Your task to perform on an android device: open wifi settings Image 0: 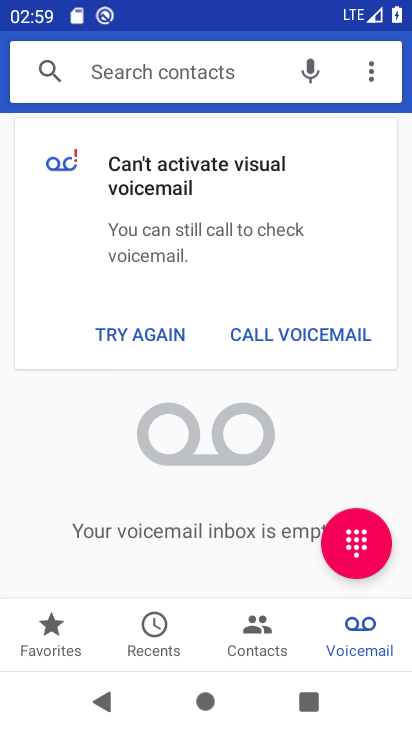
Step 0: press home button
Your task to perform on an android device: open wifi settings Image 1: 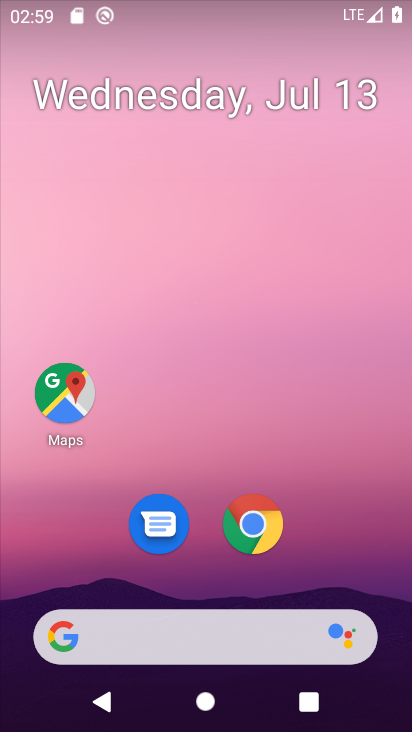
Step 1: drag from (337, 534) to (315, 33)
Your task to perform on an android device: open wifi settings Image 2: 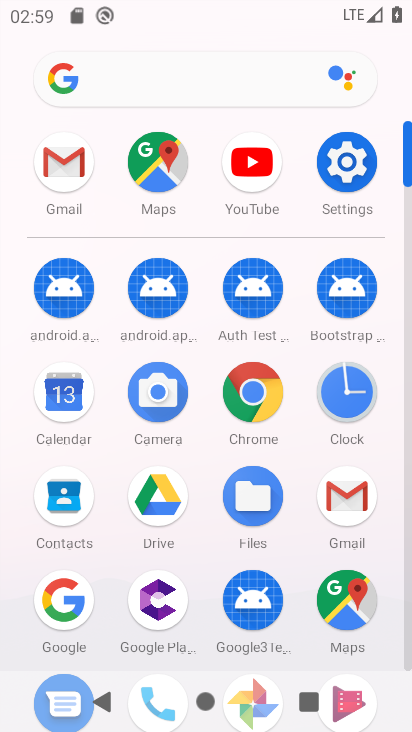
Step 2: click (342, 170)
Your task to perform on an android device: open wifi settings Image 3: 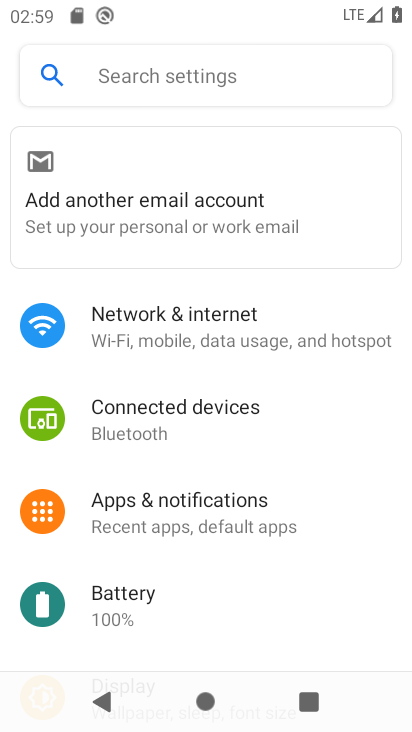
Step 3: click (255, 335)
Your task to perform on an android device: open wifi settings Image 4: 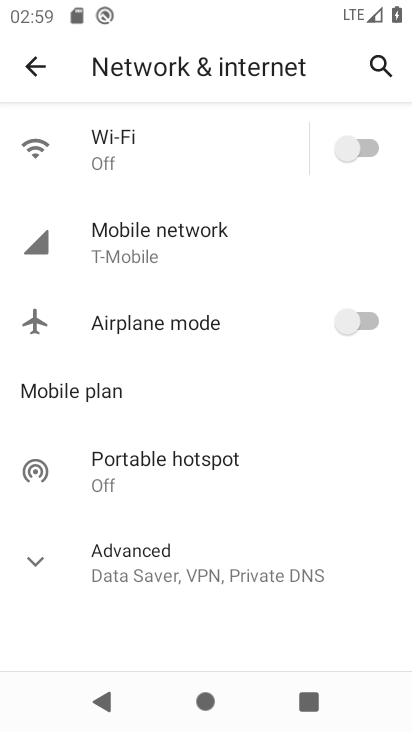
Step 4: click (135, 145)
Your task to perform on an android device: open wifi settings Image 5: 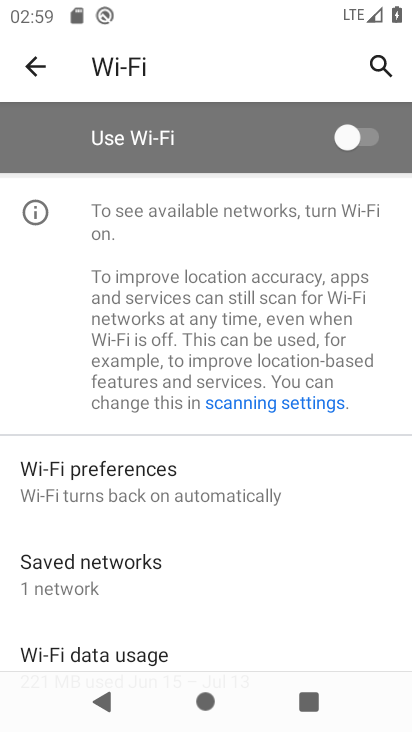
Step 5: task complete